Your task to perform on an android device: Show me popular videos on Youtube Image 0: 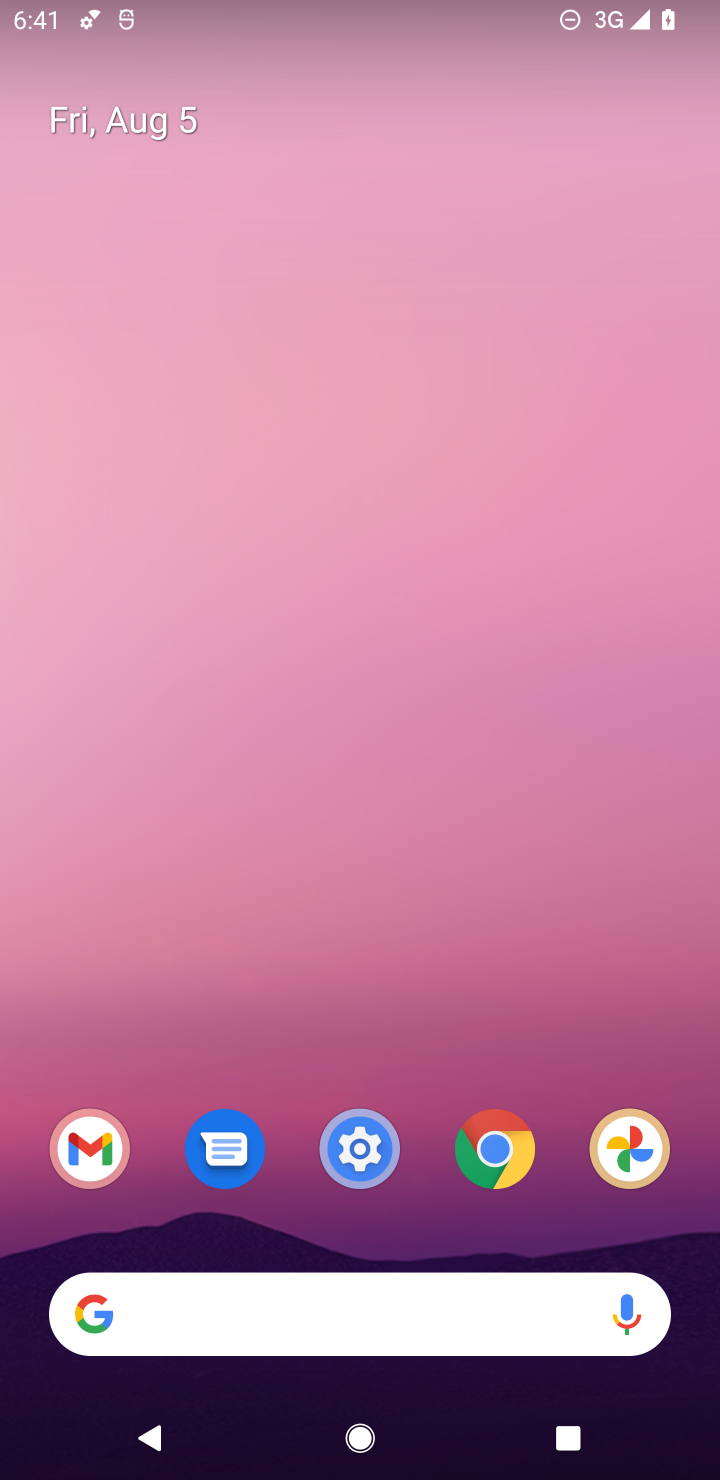
Step 0: drag from (409, 1082) to (302, 13)
Your task to perform on an android device: Show me popular videos on Youtube Image 1: 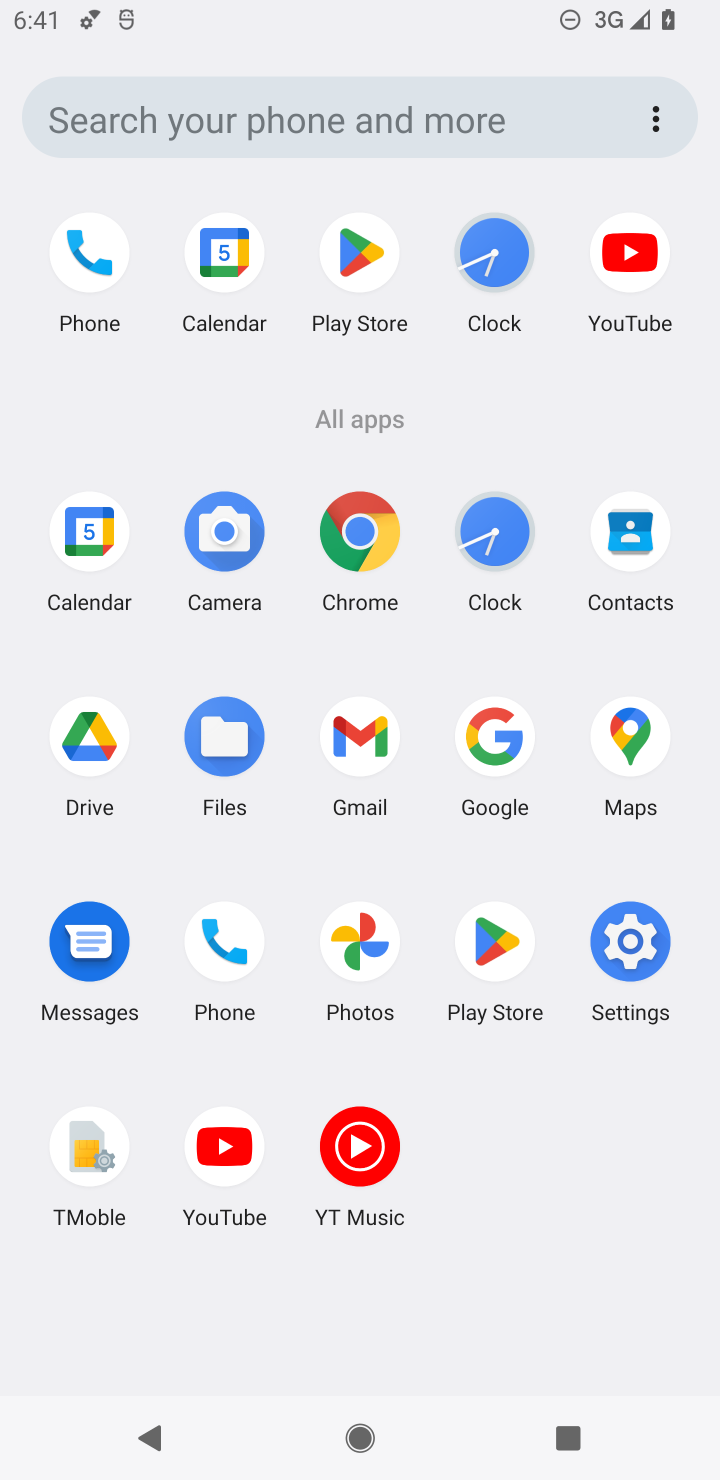
Step 1: click (219, 1163)
Your task to perform on an android device: Show me popular videos on Youtube Image 2: 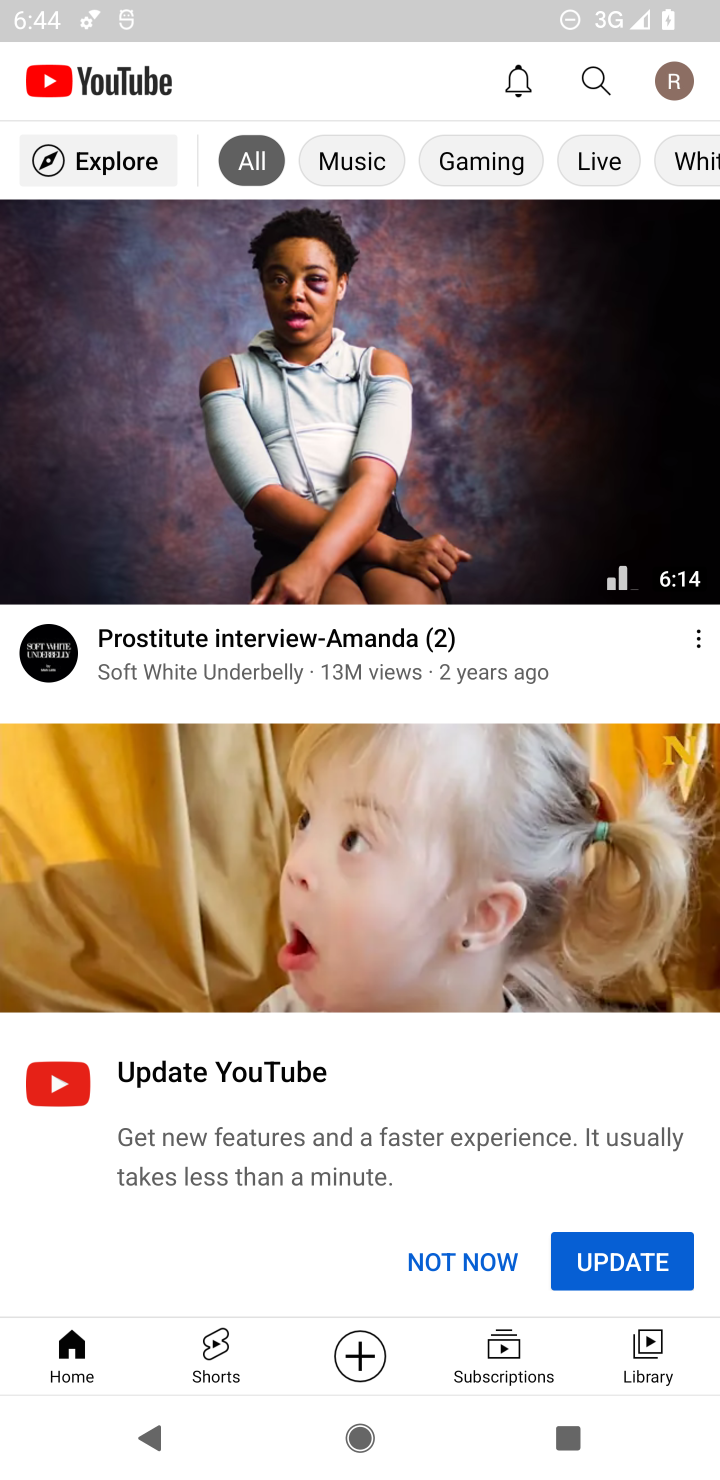
Step 2: click (594, 95)
Your task to perform on an android device: Show me popular videos on Youtube Image 3: 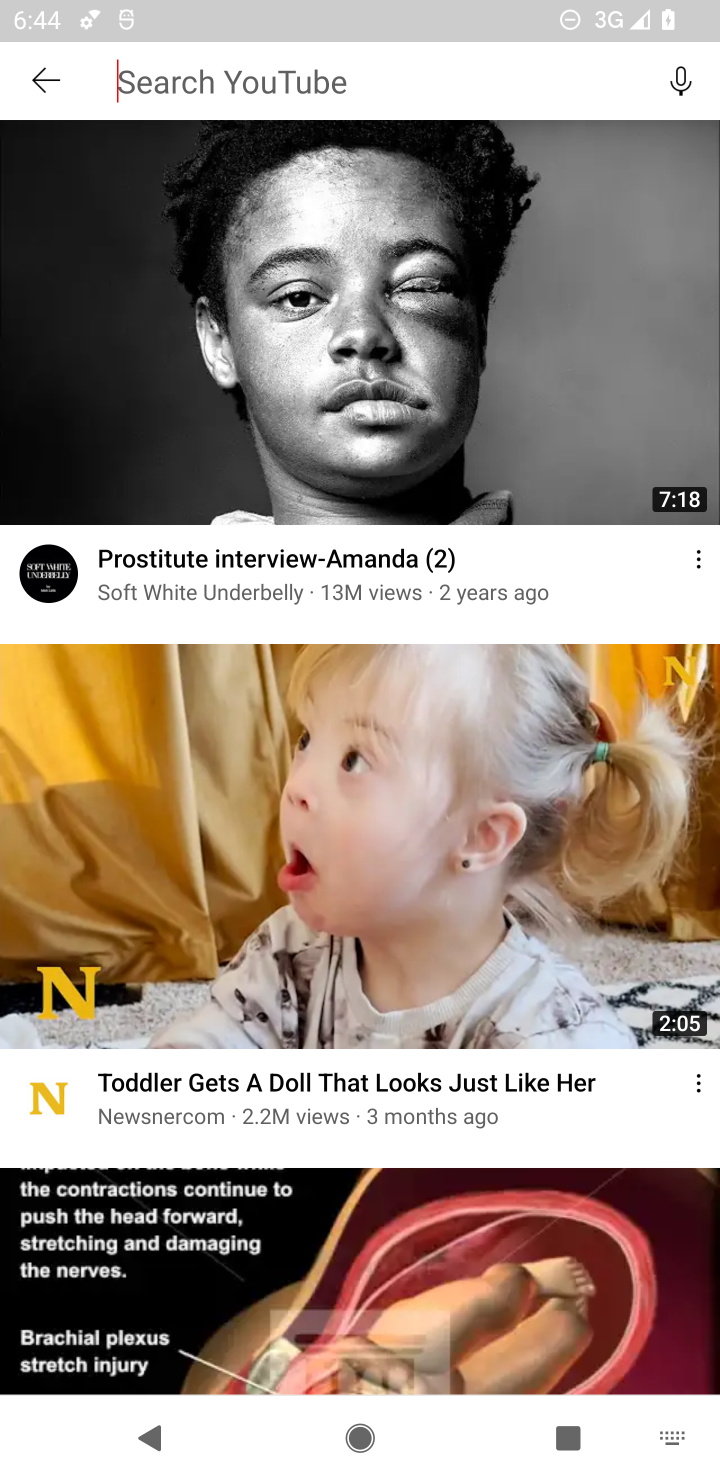
Step 3: click (594, 76)
Your task to perform on an android device: Show me popular videos on Youtube Image 4: 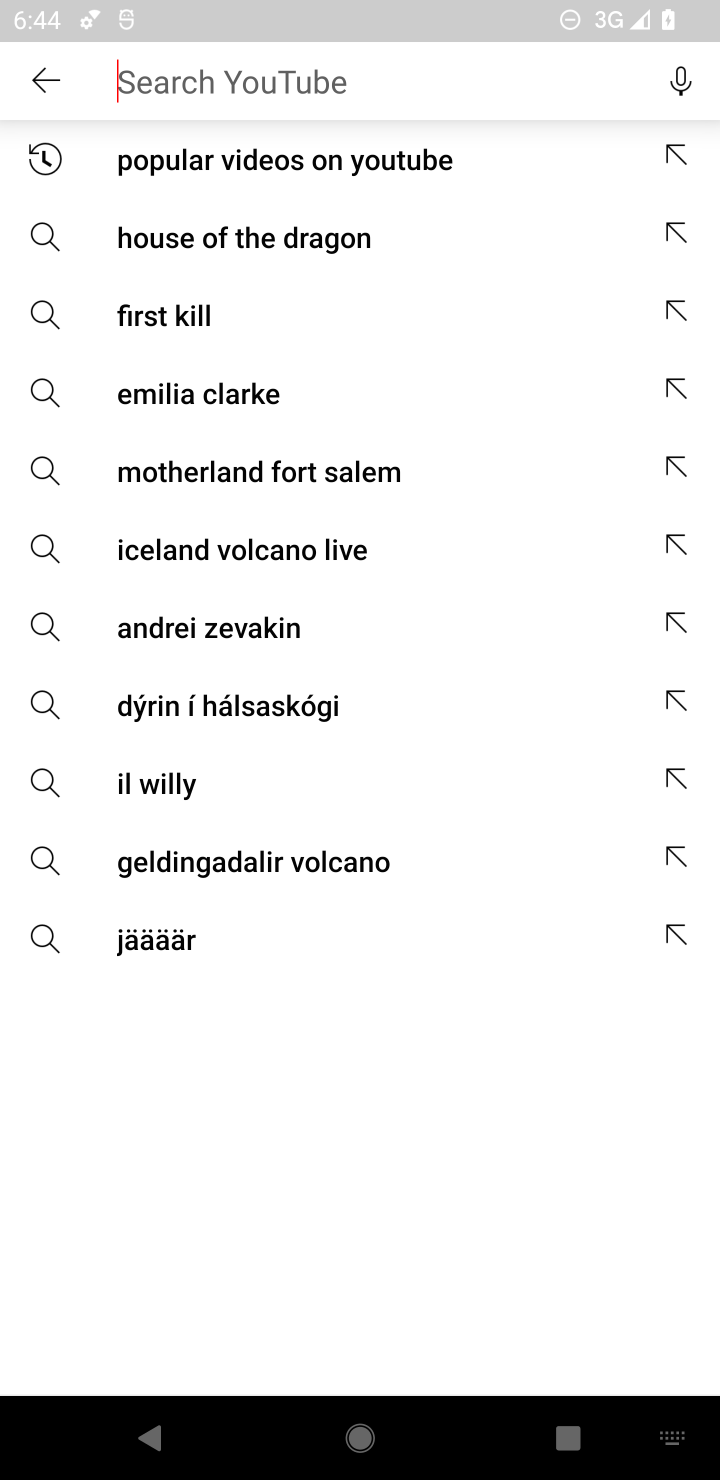
Step 4: click (336, 176)
Your task to perform on an android device: Show me popular videos on Youtube Image 5: 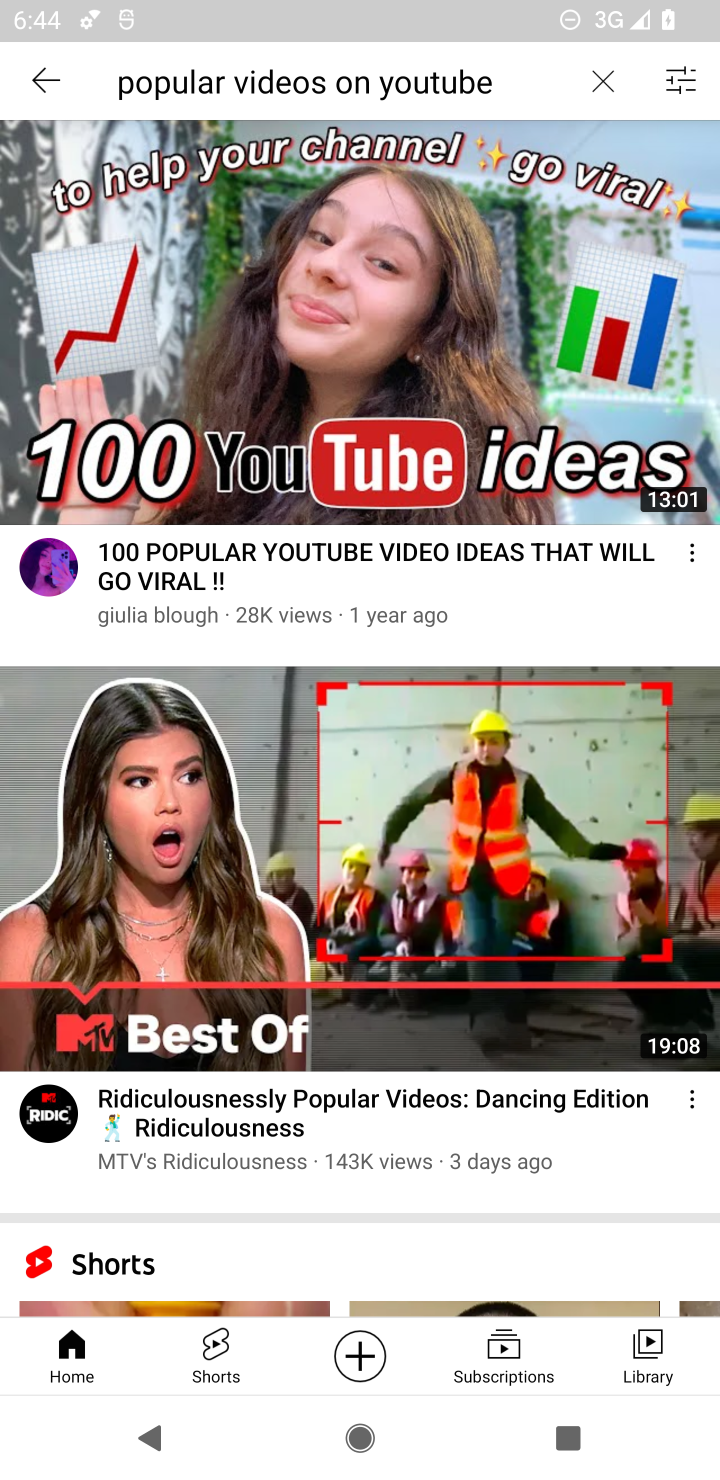
Step 5: task complete